Your task to perform on an android device: Find coffee shops on Maps Image 0: 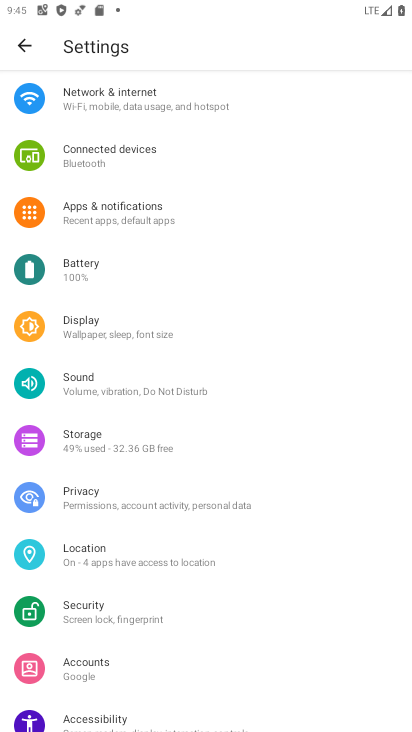
Step 0: press home button
Your task to perform on an android device: Find coffee shops on Maps Image 1: 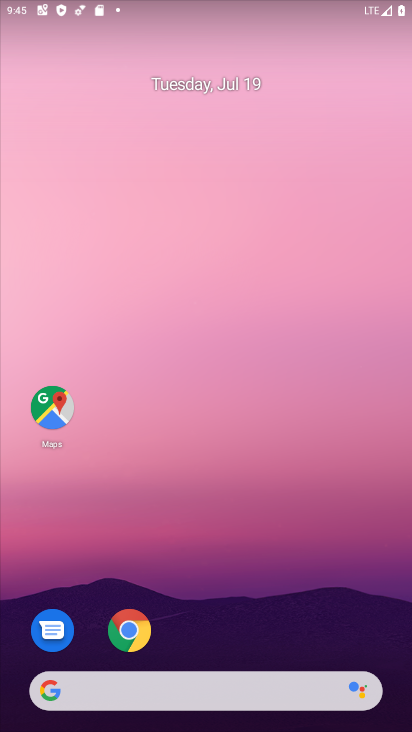
Step 1: drag from (246, 615) to (255, 280)
Your task to perform on an android device: Find coffee shops on Maps Image 2: 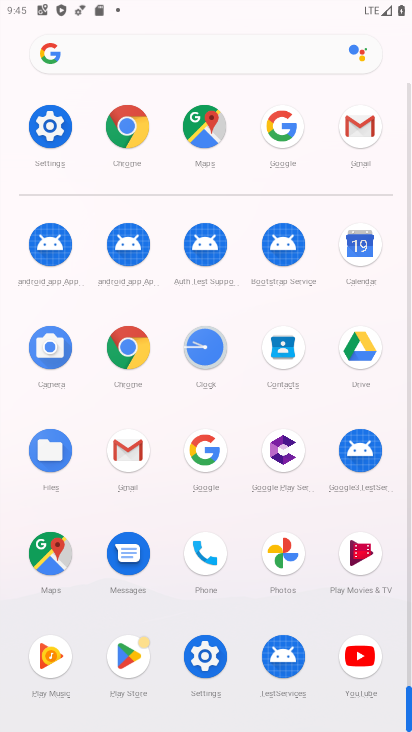
Step 2: click (62, 560)
Your task to perform on an android device: Find coffee shops on Maps Image 3: 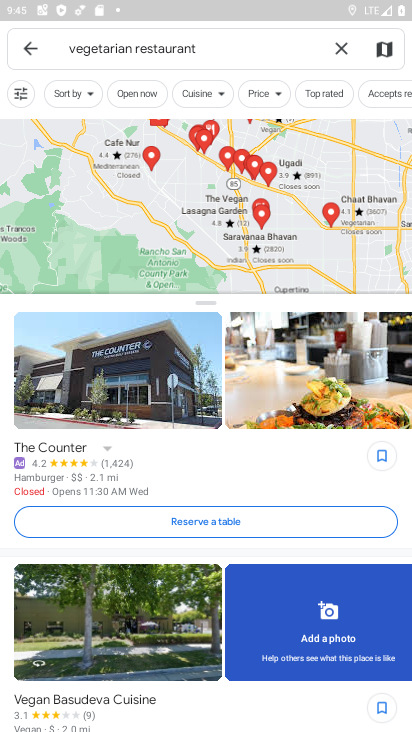
Step 3: click (341, 50)
Your task to perform on an android device: Find coffee shops on Maps Image 4: 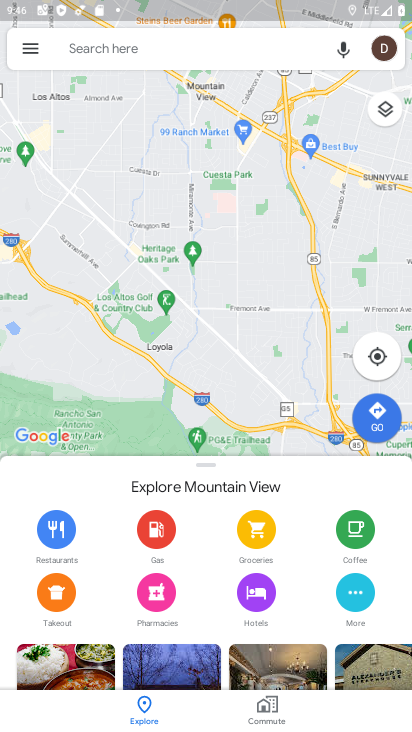
Step 4: click (262, 51)
Your task to perform on an android device: Find coffee shops on Maps Image 5: 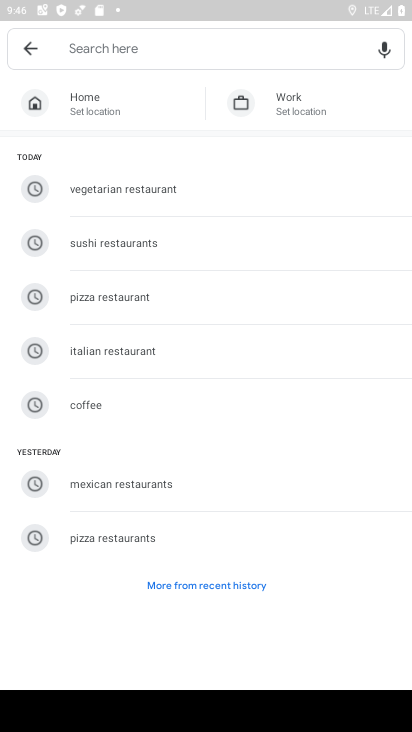
Step 5: type "coffee shops"
Your task to perform on an android device: Find coffee shops on Maps Image 6: 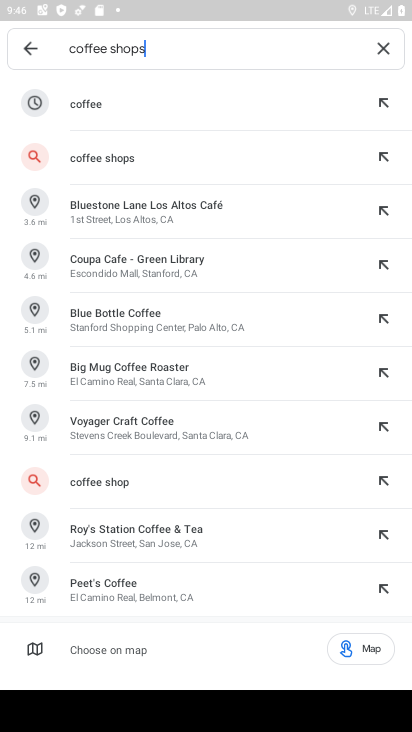
Step 6: click (158, 162)
Your task to perform on an android device: Find coffee shops on Maps Image 7: 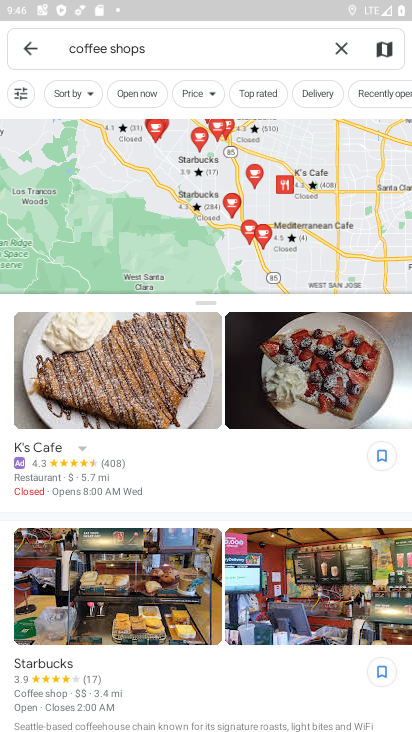
Step 7: task complete